Your task to perform on an android device: Open the web browser Image 0: 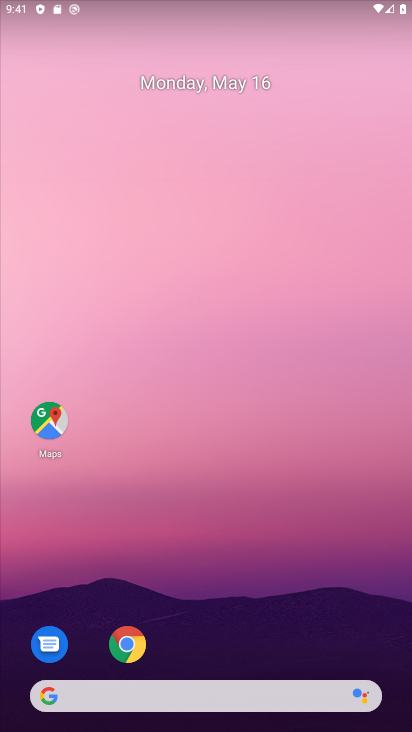
Step 0: press home button
Your task to perform on an android device: Open the web browser Image 1: 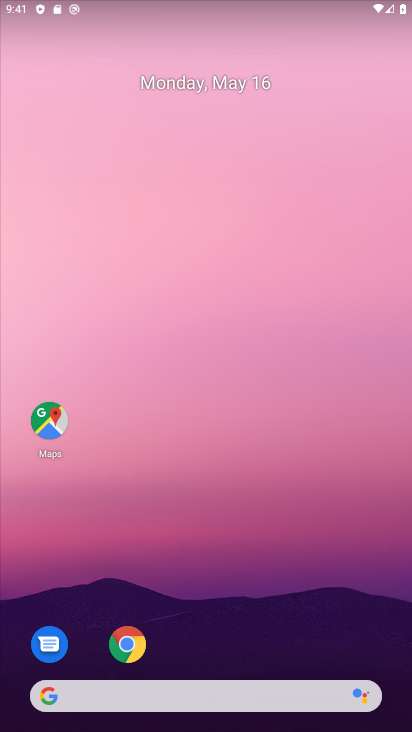
Step 1: drag from (58, 547) to (386, 349)
Your task to perform on an android device: Open the web browser Image 2: 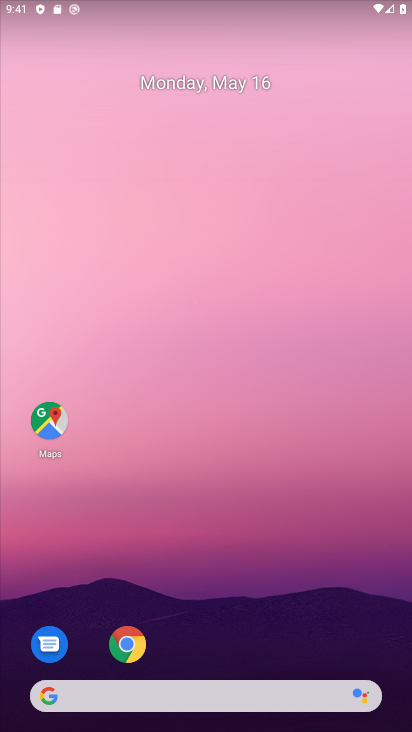
Step 2: drag from (66, 473) to (274, 5)
Your task to perform on an android device: Open the web browser Image 3: 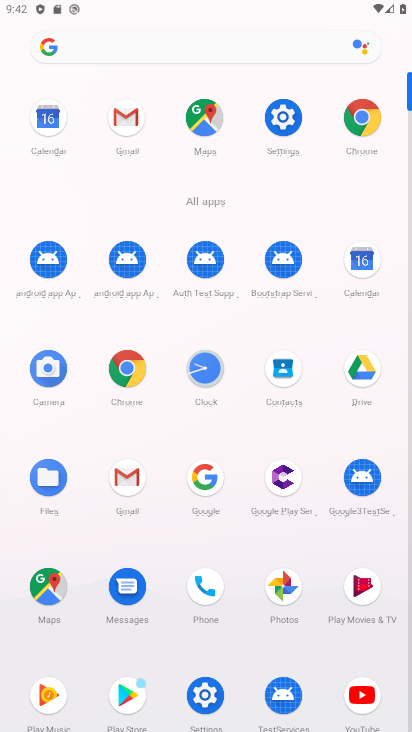
Step 3: click (289, 115)
Your task to perform on an android device: Open the web browser Image 4: 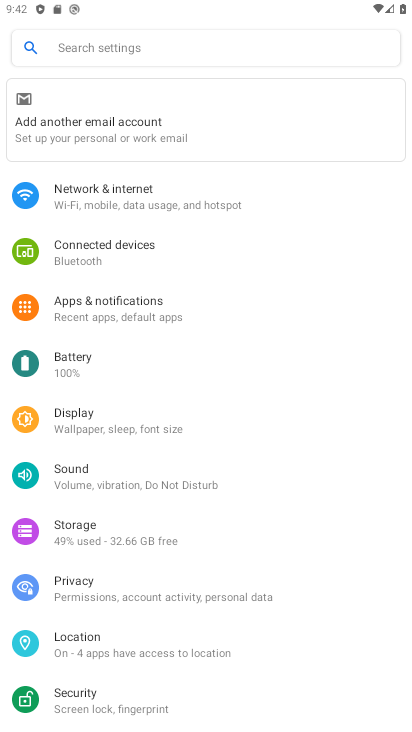
Step 4: task complete